Your task to perform on an android device: toggle javascript in the chrome app Image 0: 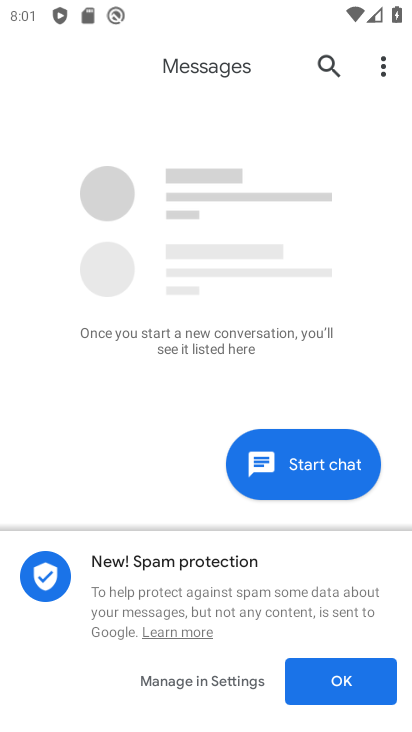
Step 0: press home button
Your task to perform on an android device: toggle javascript in the chrome app Image 1: 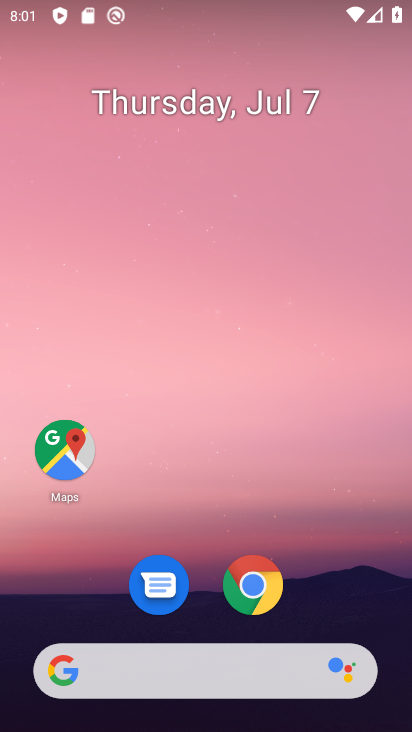
Step 1: drag from (202, 527) to (259, 0)
Your task to perform on an android device: toggle javascript in the chrome app Image 2: 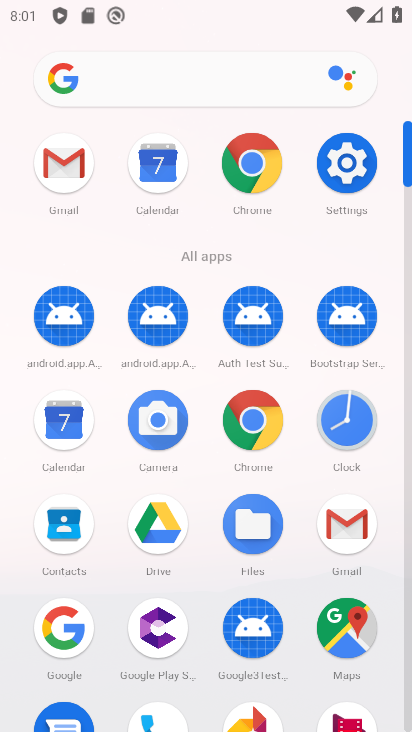
Step 2: click (261, 179)
Your task to perform on an android device: toggle javascript in the chrome app Image 3: 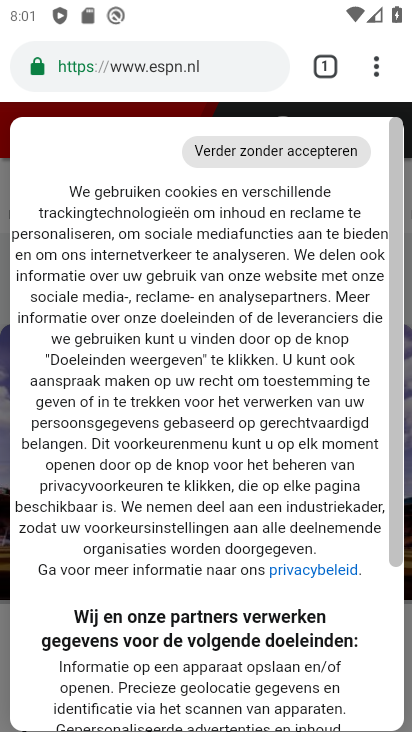
Step 3: click (377, 74)
Your task to perform on an android device: toggle javascript in the chrome app Image 4: 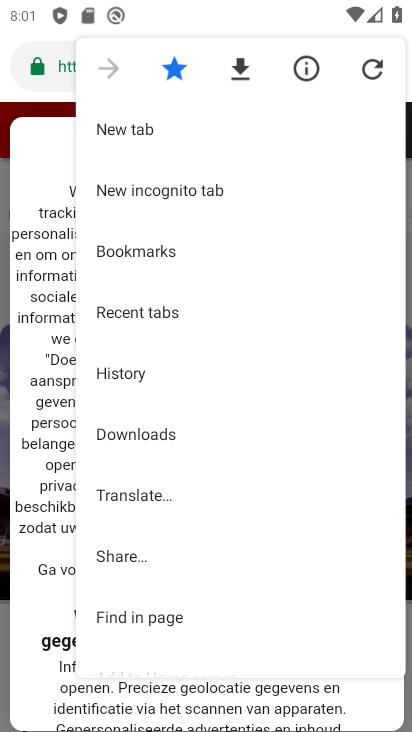
Step 4: drag from (232, 515) to (271, 102)
Your task to perform on an android device: toggle javascript in the chrome app Image 5: 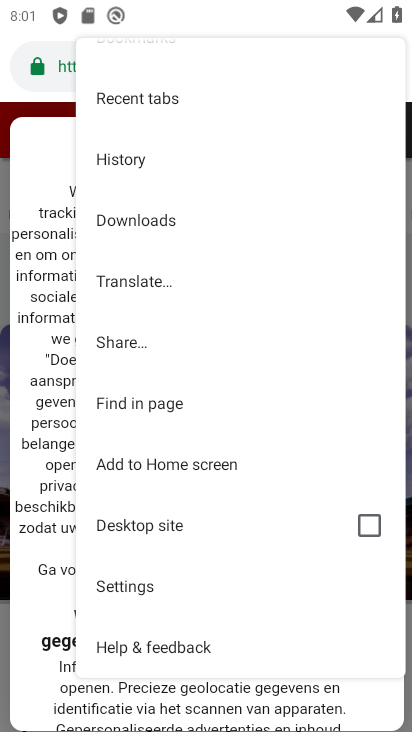
Step 5: click (141, 585)
Your task to perform on an android device: toggle javascript in the chrome app Image 6: 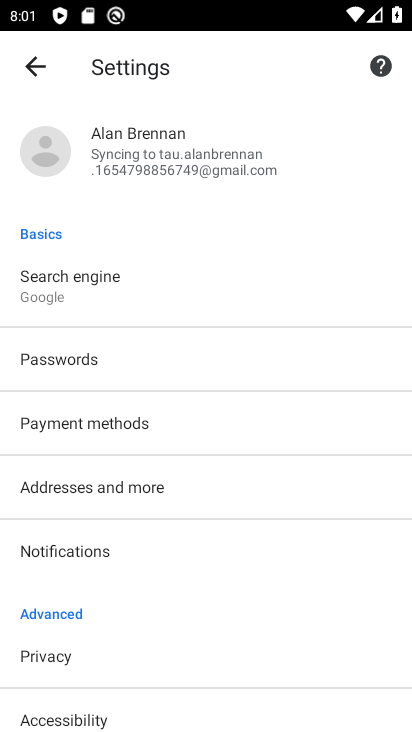
Step 6: drag from (241, 574) to (270, 188)
Your task to perform on an android device: toggle javascript in the chrome app Image 7: 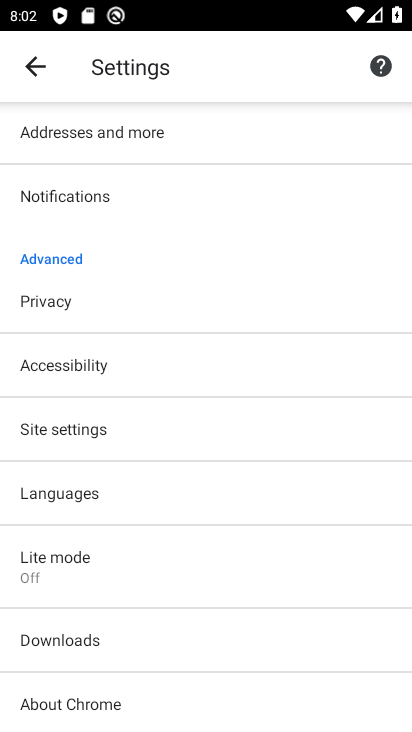
Step 7: click (114, 425)
Your task to perform on an android device: toggle javascript in the chrome app Image 8: 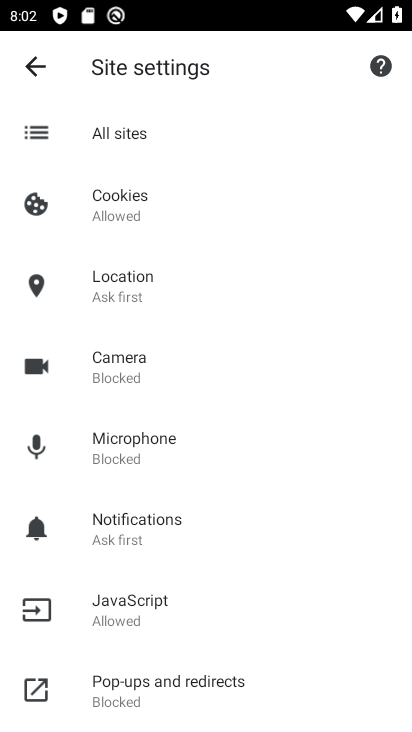
Step 8: click (181, 604)
Your task to perform on an android device: toggle javascript in the chrome app Image 9: 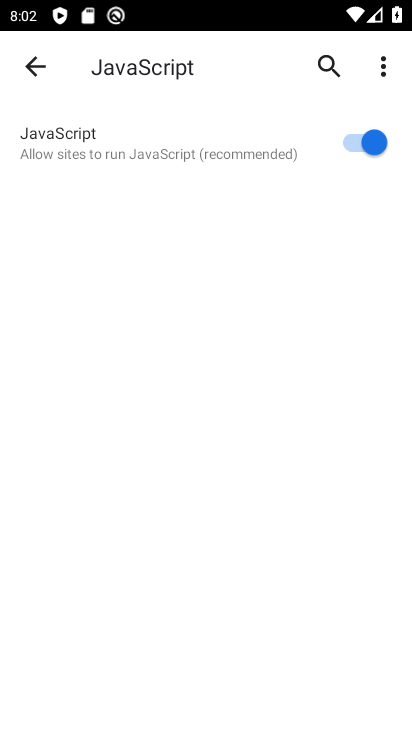
Step 9: click (366, 141)
Your task to perform on an android device: toggle javascript in the chrome app Image 10: 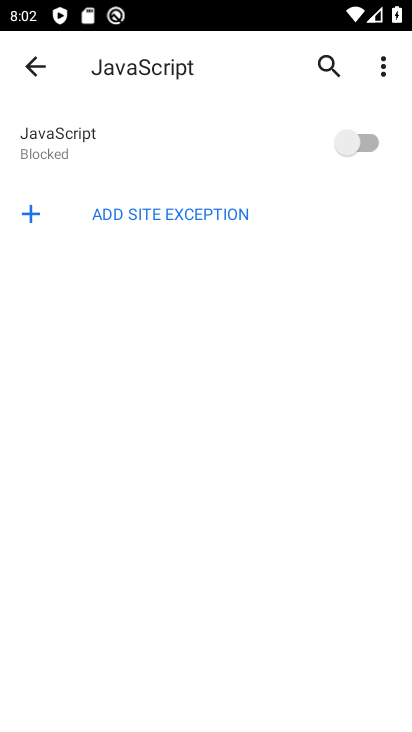
Step 10: task complete